Your task to perform on an android device: Open the Play Movies app and select the watchlist tab. Image 0: 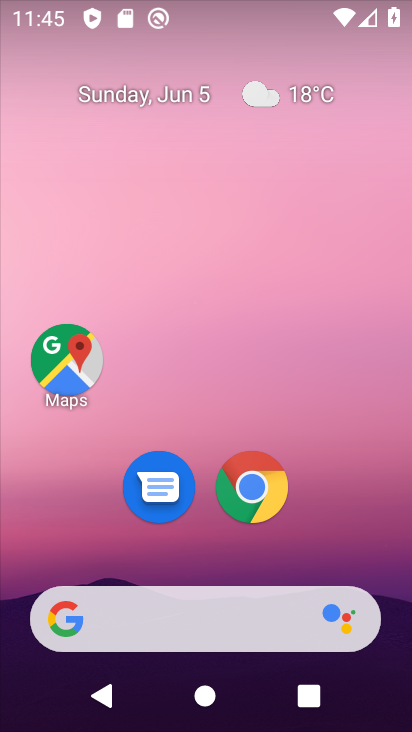
Step 0: drag from (331, 510) to (324, 200)
Your task to perform on an android device: Open the Play Movies app and select the watchlist tab. Image 1: 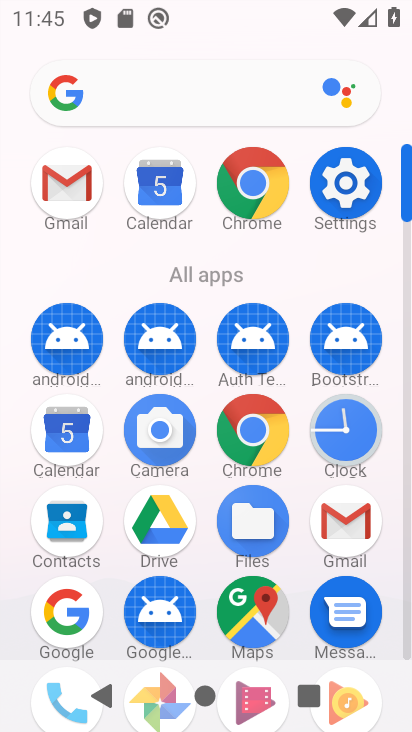
Step 1: drag from (305, 628) to (304, 315)
Your task to perform on an android device: Open the Play Movies app and select the watchlist tab. Image 2: 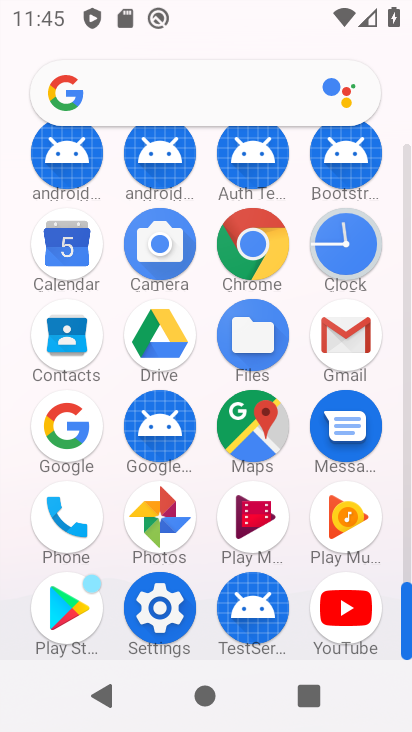
Step 2: click (246, 528)
Your task to perform on an android device: Open the Play Movies app and select the watchlist tab. Image 3: 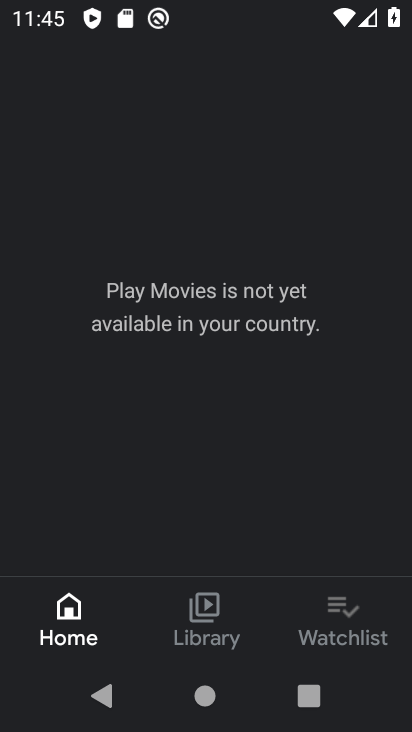
Step 3: click (345, 633)
Your task to perform on an android device: Open the Play Movies app and select the watchlist tab. Image 4: 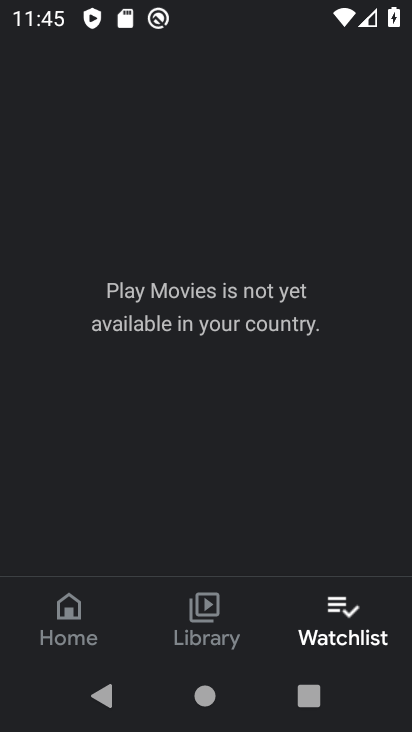
Step 4: task complete